Your task to perform on an android device: Go to network settings Image 0: 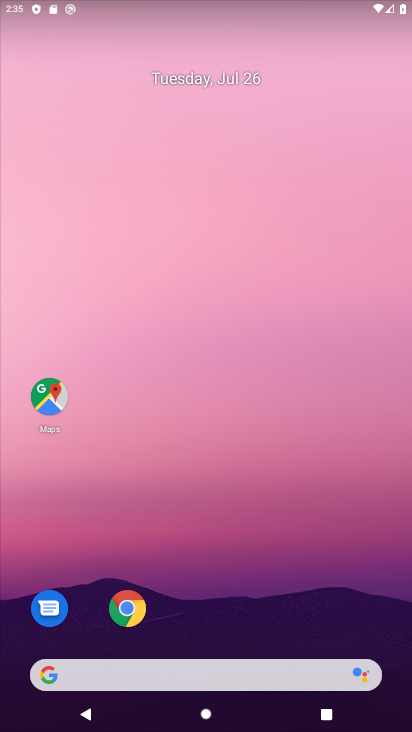
Step 0: drag from (222, 505) to (259, 8)
Your task to perform on an android device: Go to network settings Image 1: 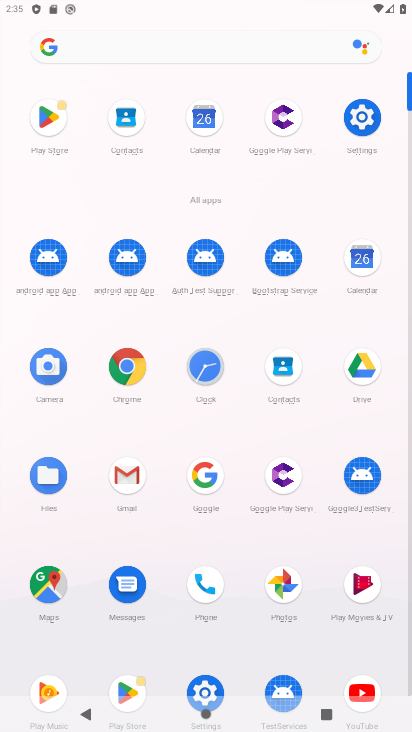
Step 1: click (365, 132)
Your task to perform on an android device: Go to network settings Image 2: 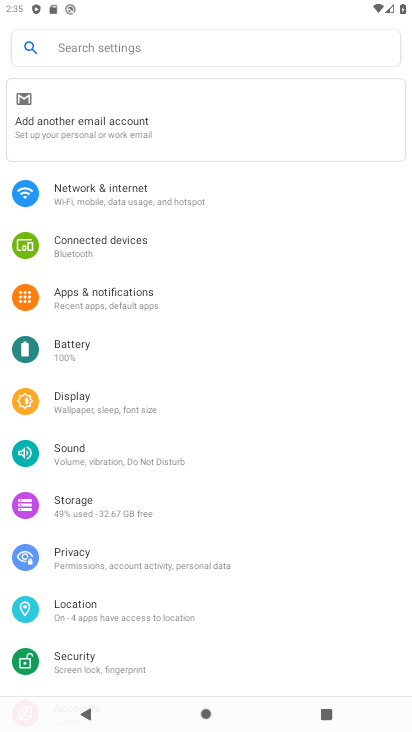
Step 2: click (159, 198)
Your task to perform on an android device: Go to network settings Image 3: 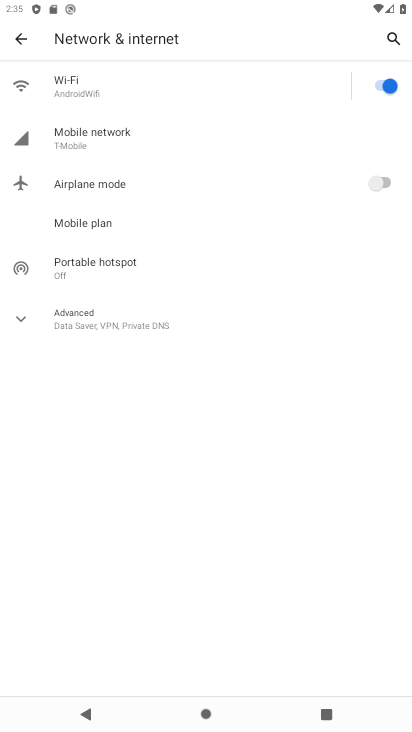
Step 3: task complete